Your task to perform on an android device: create a new album in the google photos Image 0: 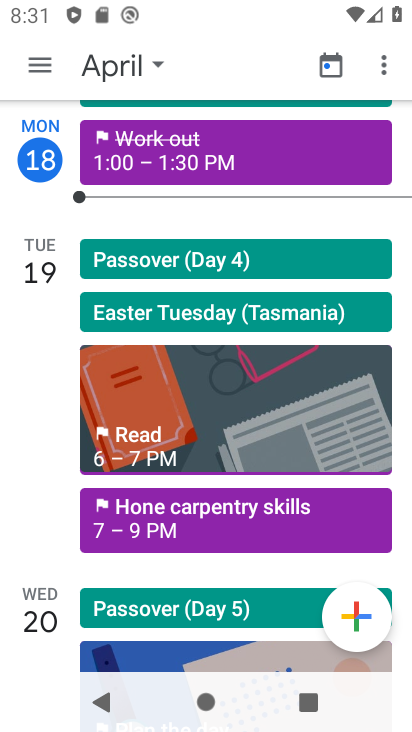
Step 0: press home button
Your task to perform on an android device: create a new album in the google photos Image 1: 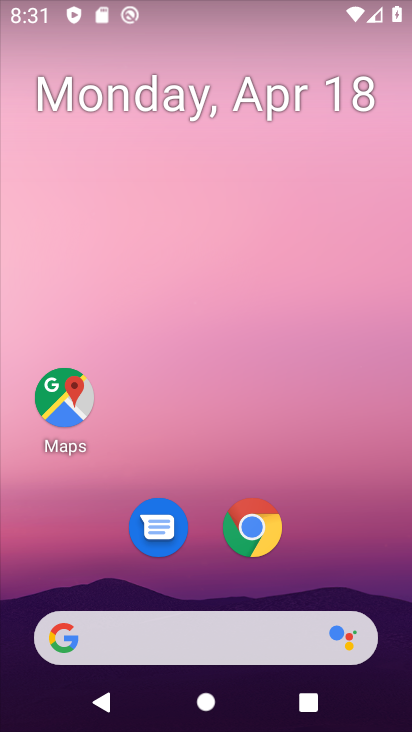
Step 1: drag from (346, 556) to (320, 72)
Your task to perform on an android device: create a new album in the google photos Image 2: 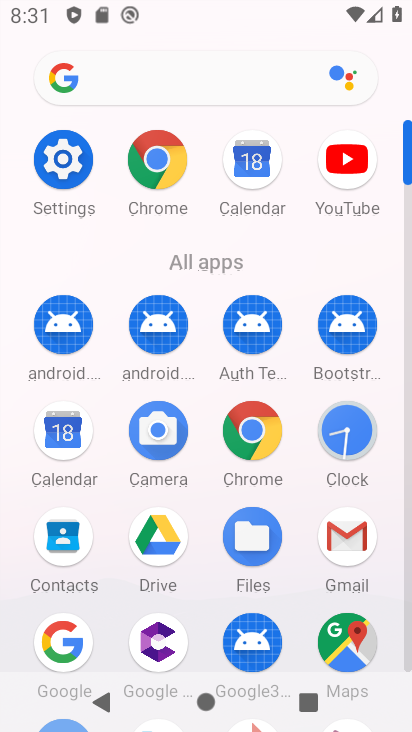
Step 2: drag from (301, 223) to (311, 24)
Your task to perform on an android device: create a new album in the google photos Image 3: 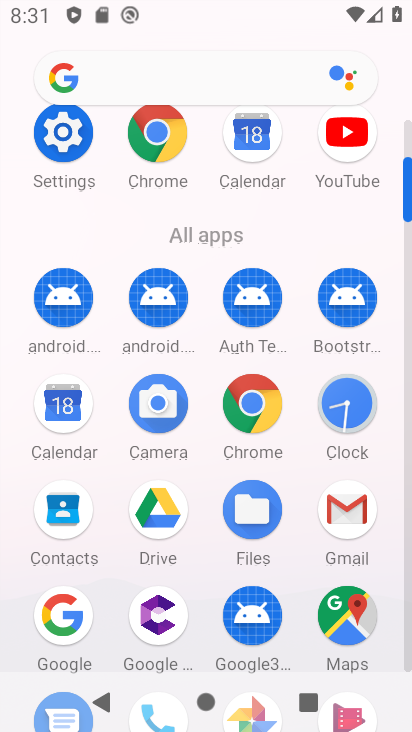
Step 3: drag from (297, 265) to (301, 20)
Your task to perform on an android device: create a new album in the google photos Image 4: 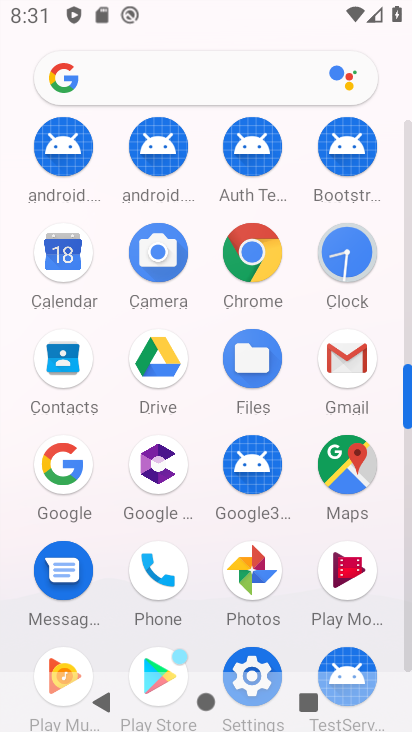
Step 4: click (246, 560)
Your task to perform on an android device: create a new album in the google photos Image 5: 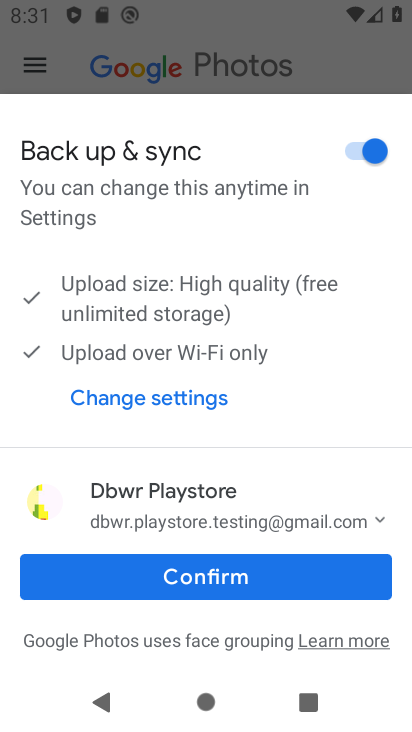
Step 5: click (369, 584)
Your task to perform on an android device: create a new album in the google photos Image 6: 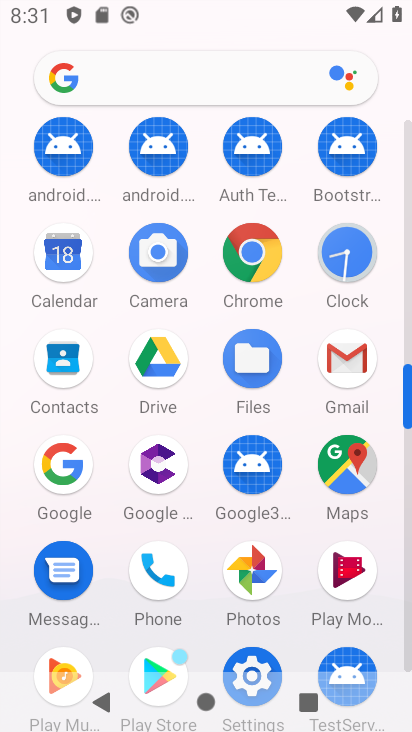
Step 6: click (257, 563)
Your task to perform on an android device: create a new album in the google photos Image 7: 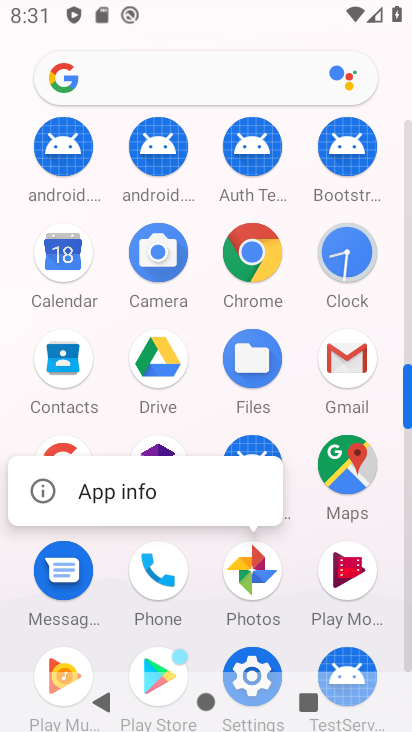
Step 7: click (257, 564)
Your task to perform on an android device: create a new album in the google photos Image 8: 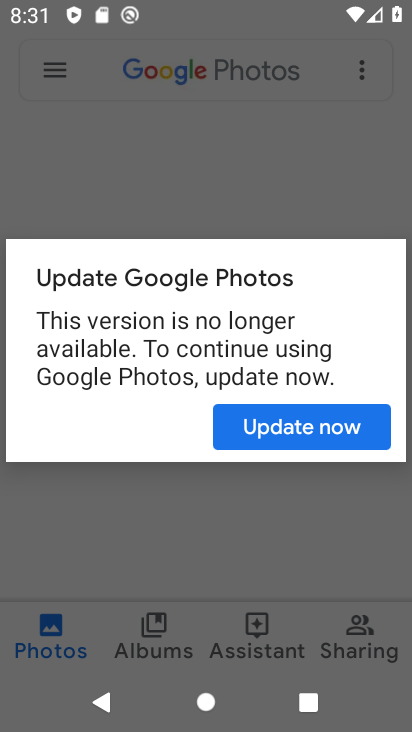
Step 8: click (303, 426)
Your task to perform on an android device: create a new album in the google photos Image 9: 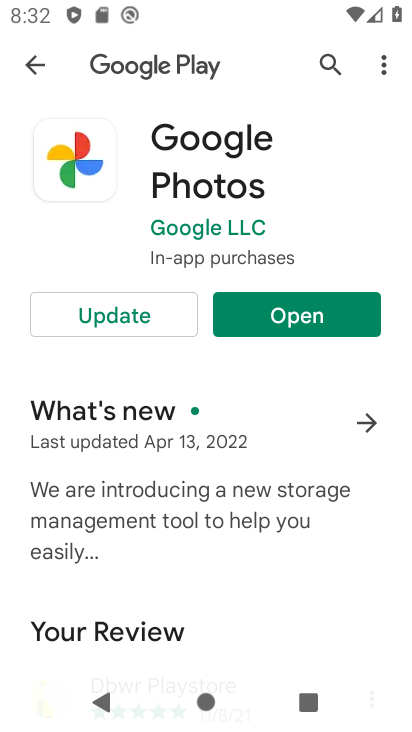
Step 9: click (163, 310)
Your task to perform on an android device: create a new album in the google photos Image 10: 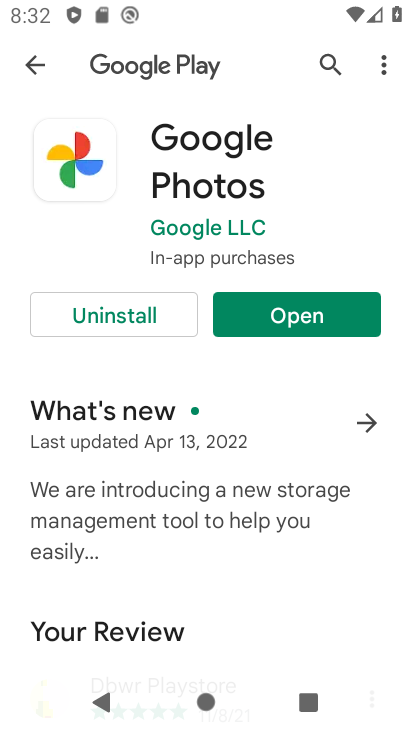
Step 10: click (331, 309)
Your task to perform on an android device: create a new album in the google photos Image 11: 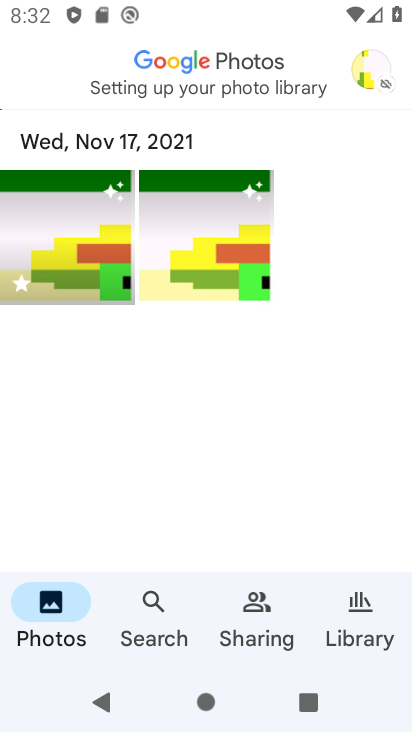
Step 11: click (81, 258)
Your task to perform on an android device: create a new album in the google photos Image 12: 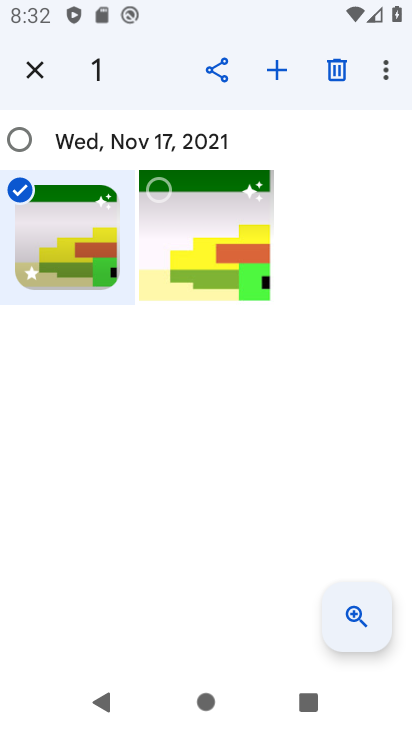
Step 12: click (163, 184)
Your task to perform on an android device: create a new album in the google photos Image 13: 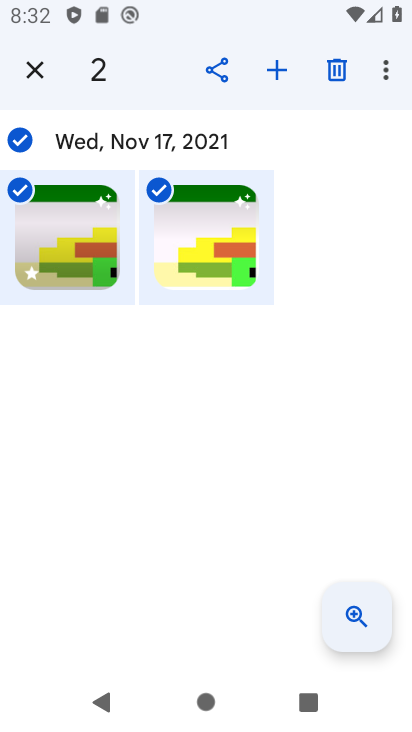
Step 13: click (276, 69)
Your task to perform on an android device: create a new album in the google photos Image 14: 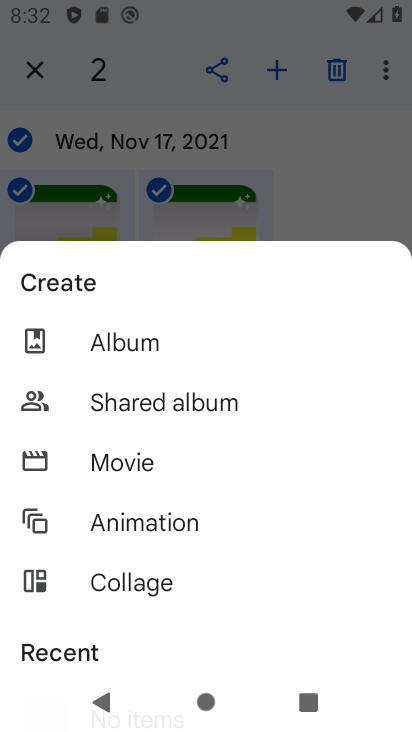
Step 14: click (139, 343)
Your task to perform on an android device: create a new album in the google photos Image 15: 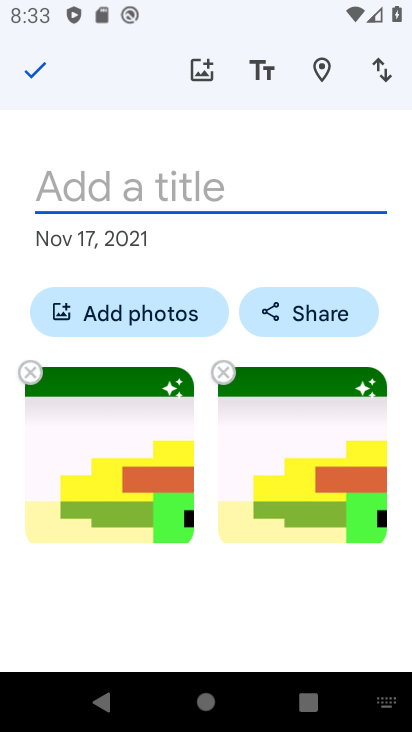
Step 15: type "nnggtt"
Your task to perform on an android device: create a new album in the google photos Image 16: 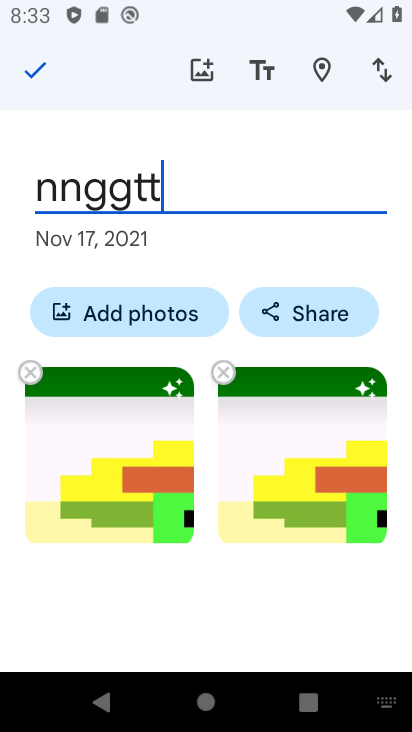
Step 16: click (32, 70)
Your task to perform on an android device: create a new album in the google photos Image 17: 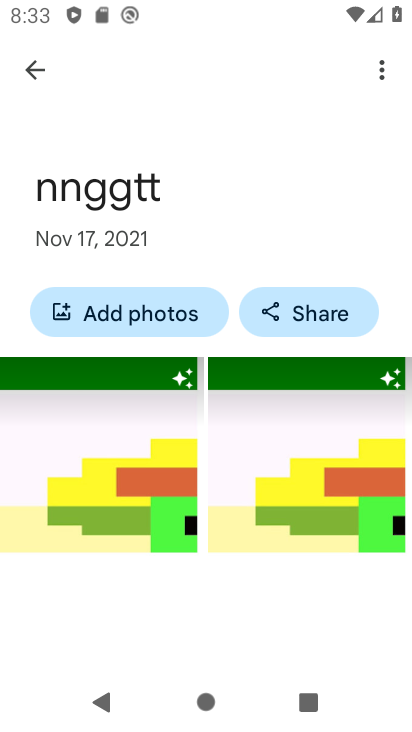
Step 17: task complete